Your task to perform on an android device: Search for dell xps on newegg, select the first entry, add it to the cart, then select checkout. Image 0: 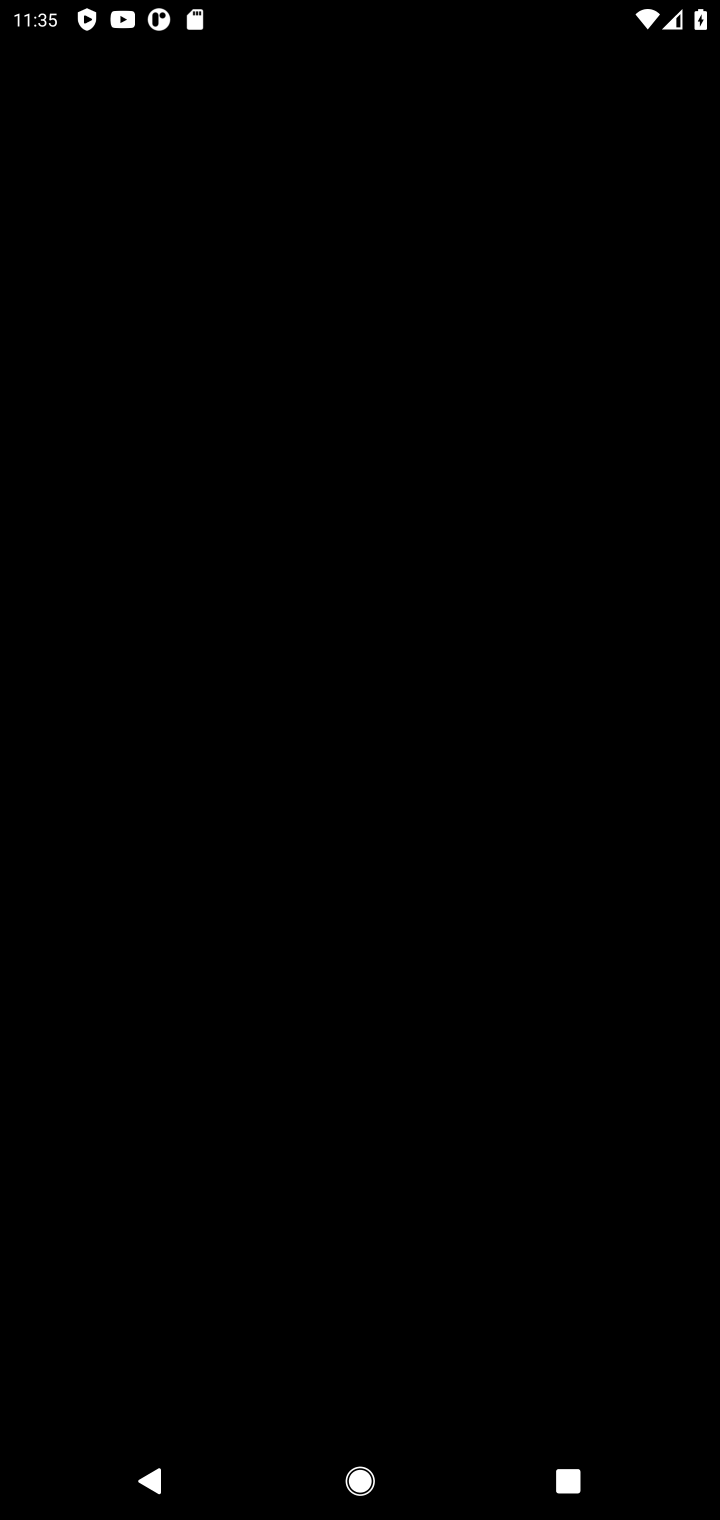
Step 0: press home button
Your task to perform on an android device: Search for dell xps on newegg, select the first entry, add it to the cart, then select checkout. Image 1: 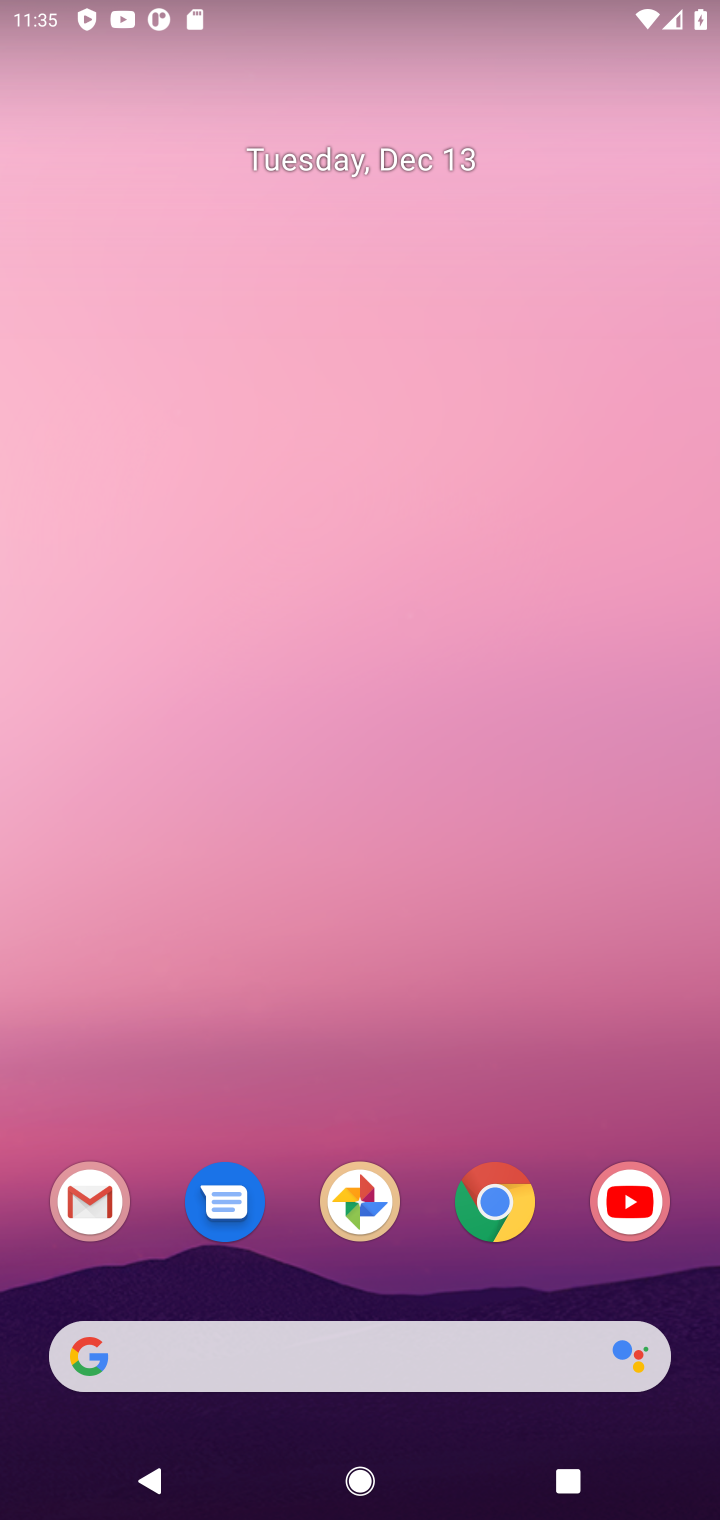
Step 1: click (482, 1205)
Your task to perform on an android device: Search for dell xps on newegg, select the first entry, add it to the cart, then select checkout. Image 2: 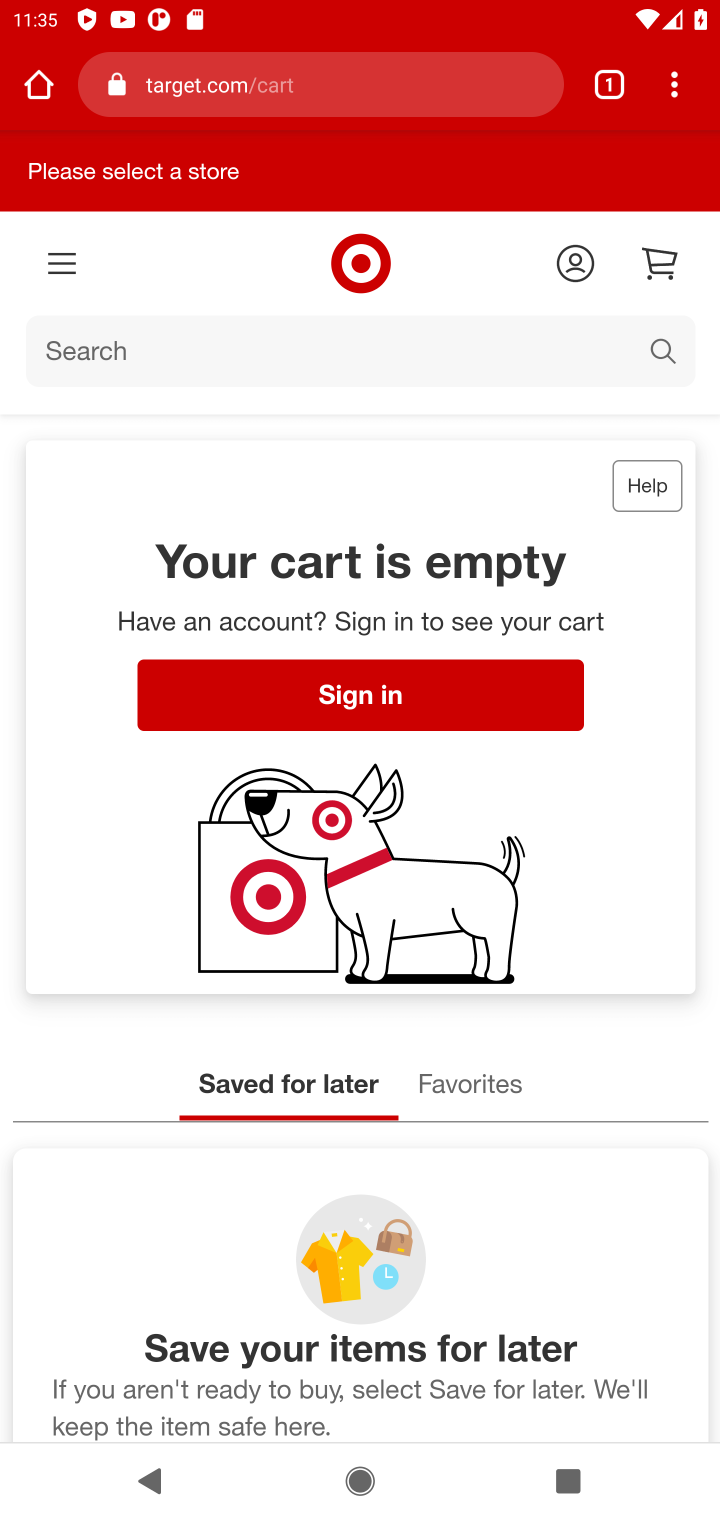
Step 2: click (341, 93)
Your task to perform on an android device: Search for dell xps on newegg, select the first entry, add it to the cart, then select checkout. Image 3: 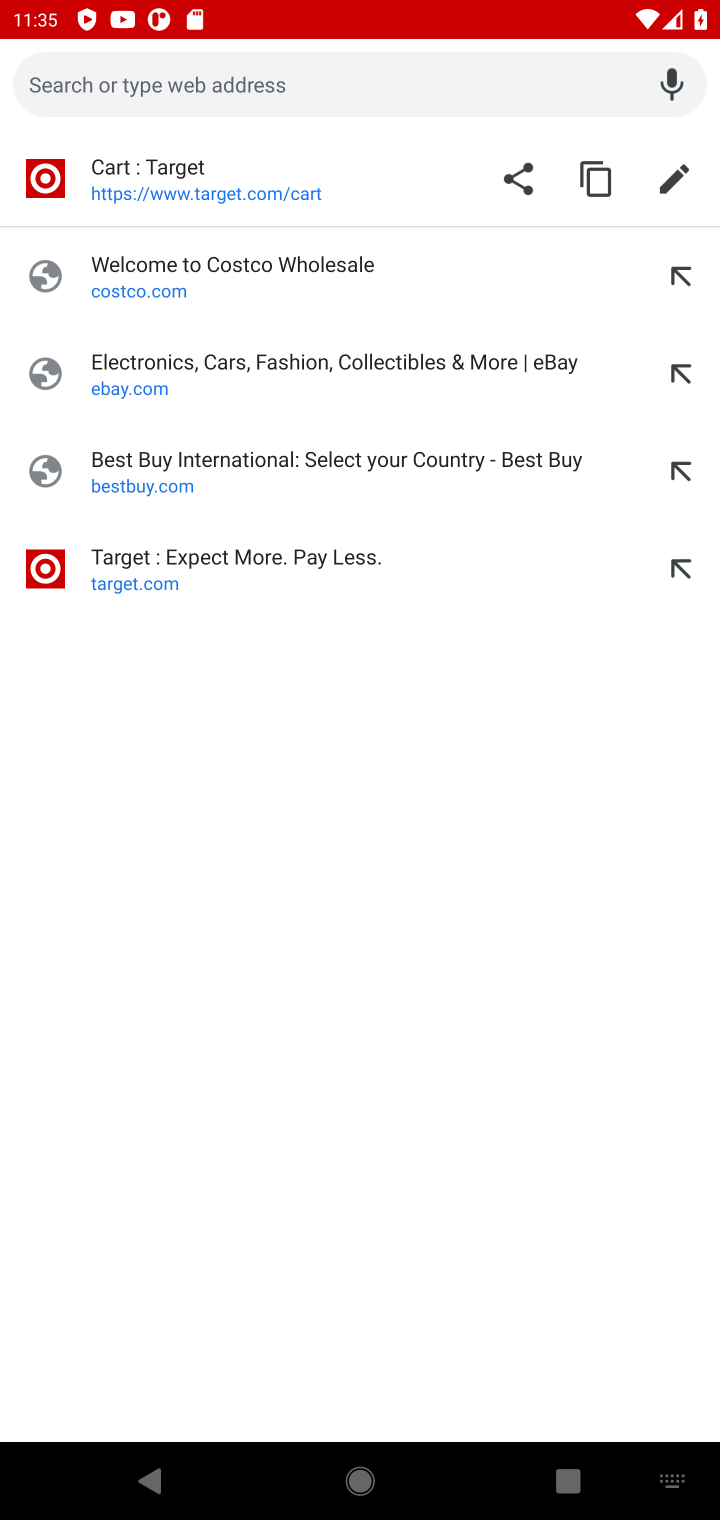
Step 3: type "newegg"
Your task to perform on an android device: Search for dell xps on newegg, select the first entry, add it to the cart, then select checkout. Image 4: 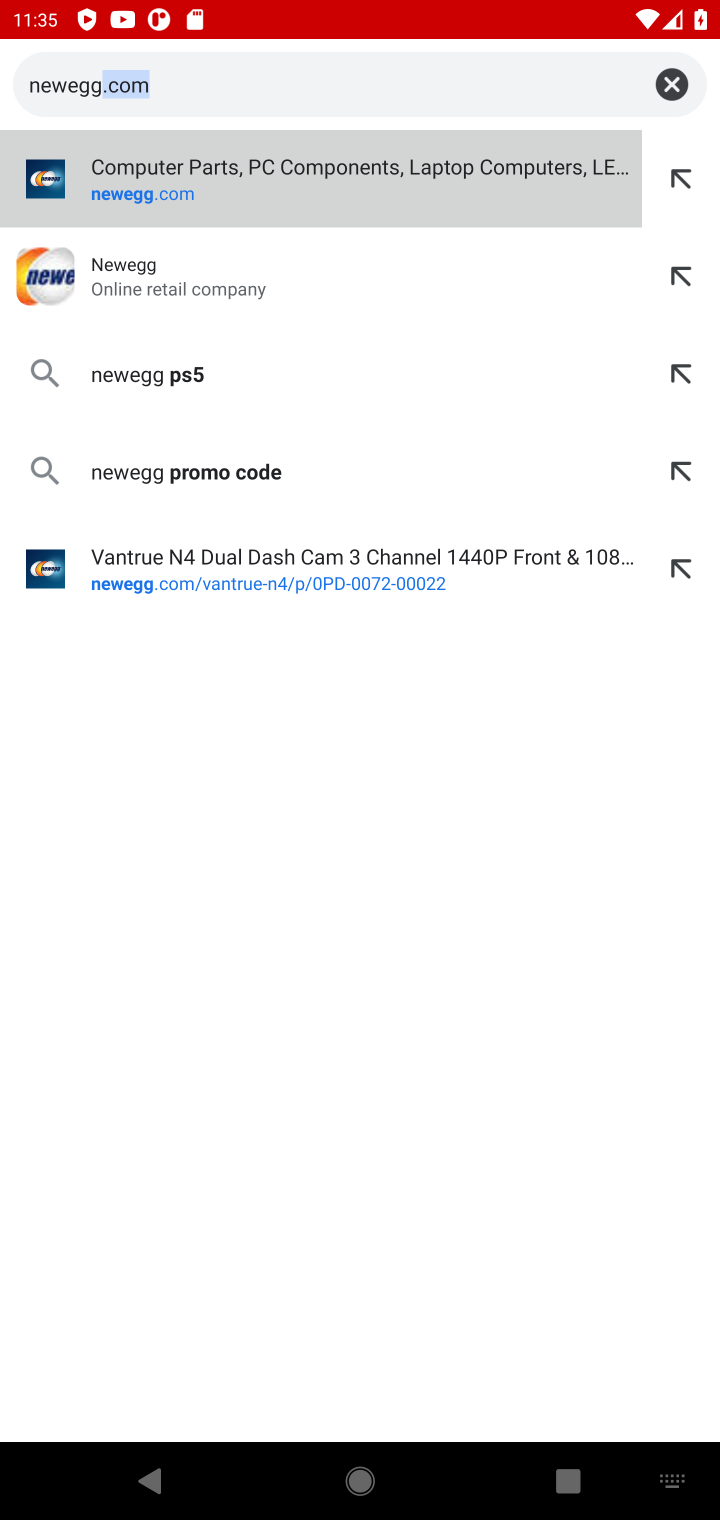
Step 4: click (305, 192)
Your task to perform on an android device: Search for dell xps on newegg, select the first entry, add it to the cart, then select checkout. Image 5: 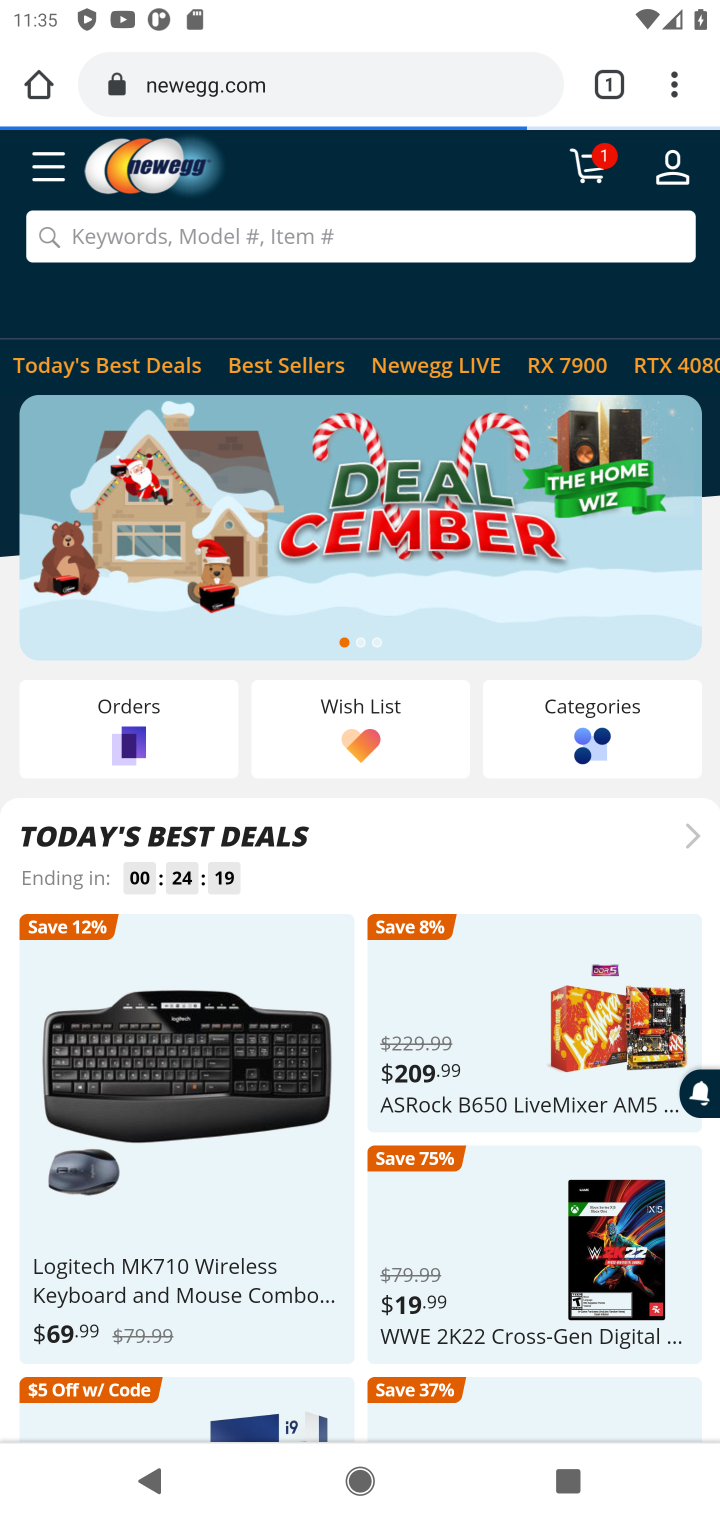
Step 5: click (313, 241)
Your task to perform on an android device: Search for dell xps on newegg, select the first entry, add it to the cart, then select checkout. Image 6: 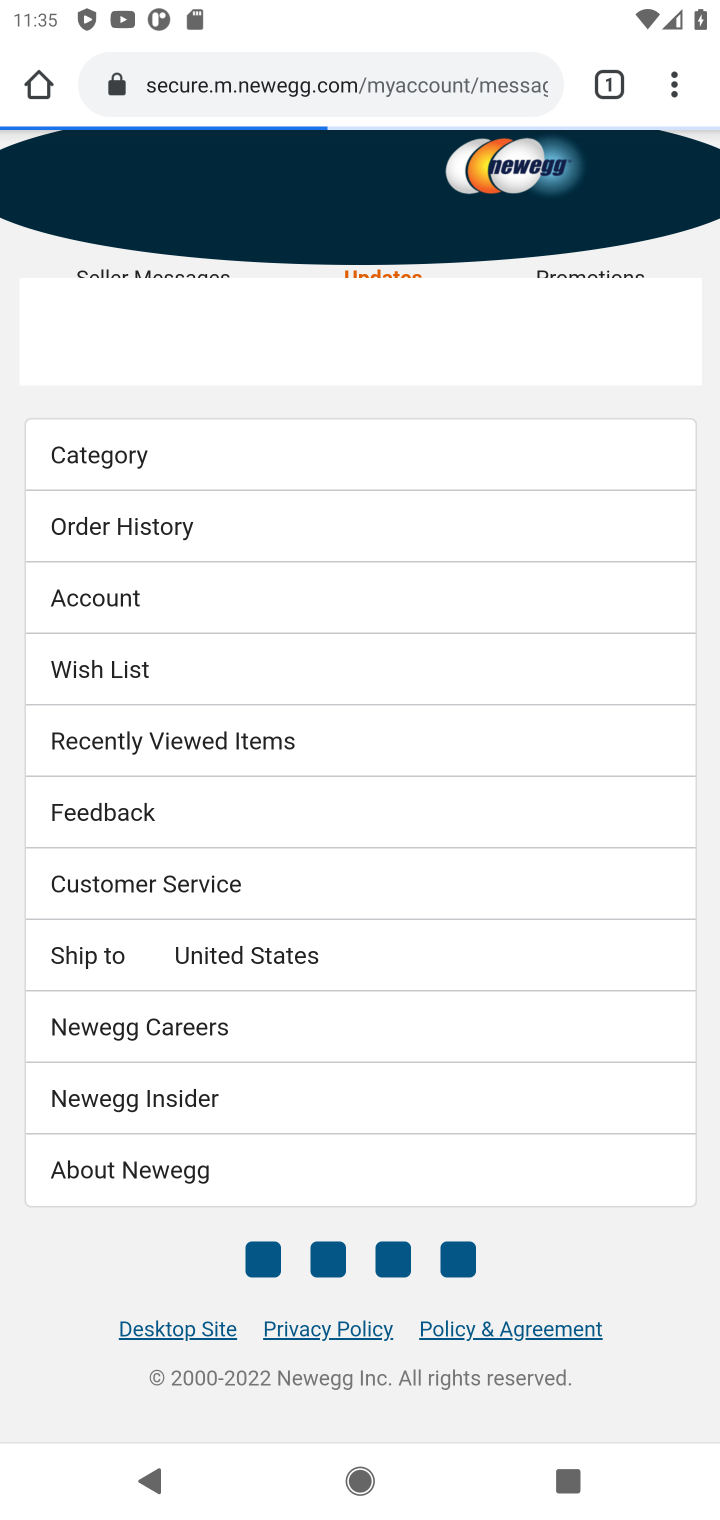
Step 6: click (456, 239)
Your task to perform on an android device: Search for dell xps on newegg, select the first entry, add it to the cart, then select checkout. Image 7: 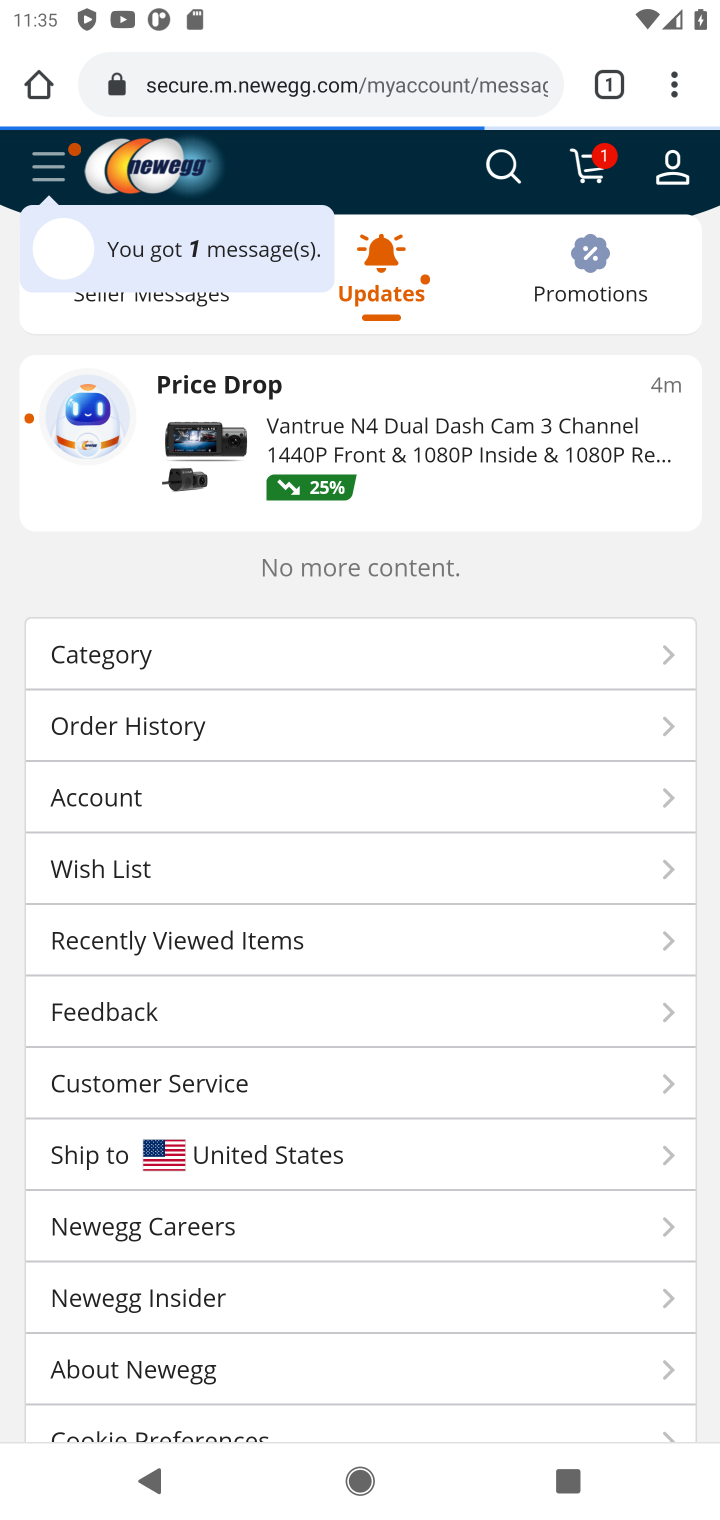
Step 7: click (118, 170)
Your task to perform on an android device: Search for dell xps on newegg, select the first entry, add it to the cart, then select checkout. Image 8: 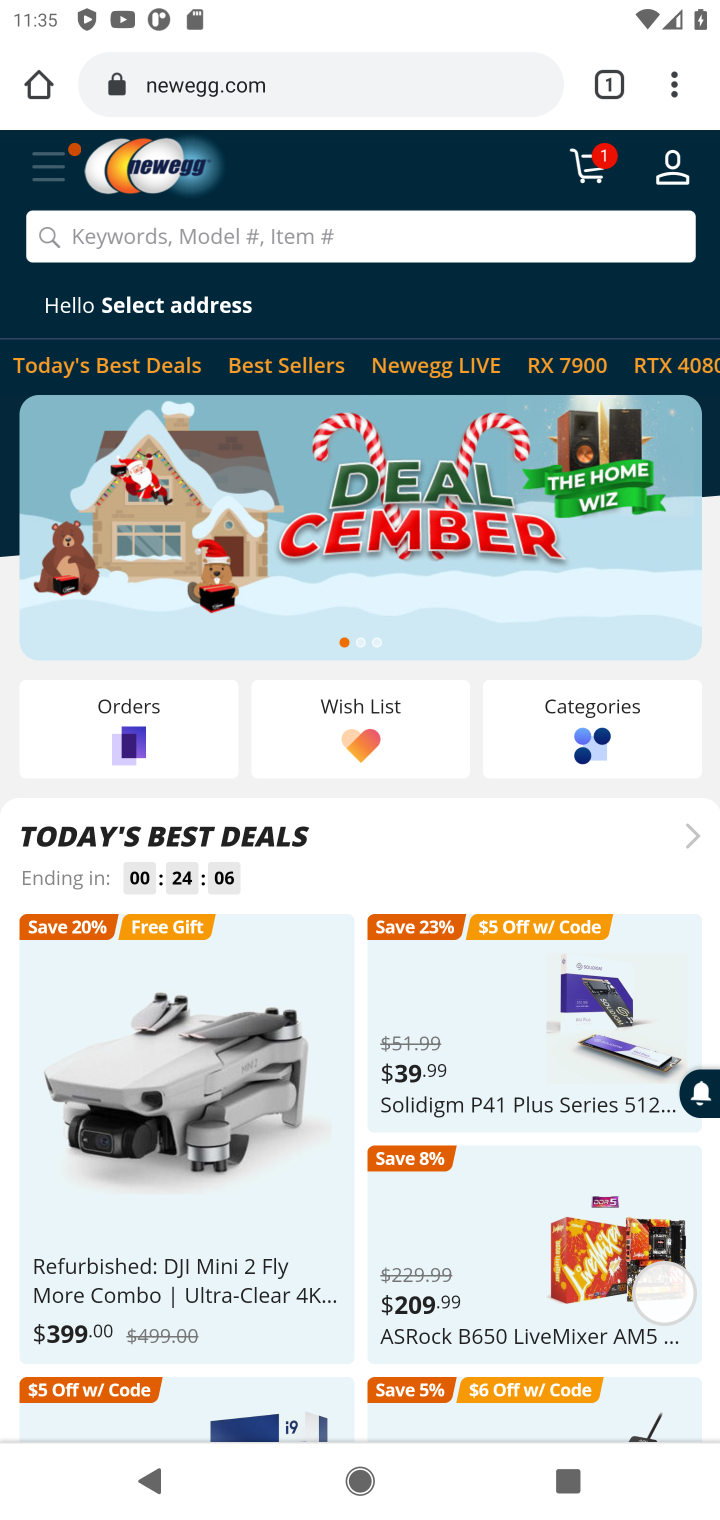
Step 8: click (495, 244)
Your task to perform on an android device: Search for dell xps on newegg, select the first entry, add it to the cart, then select checkout. Image 9: 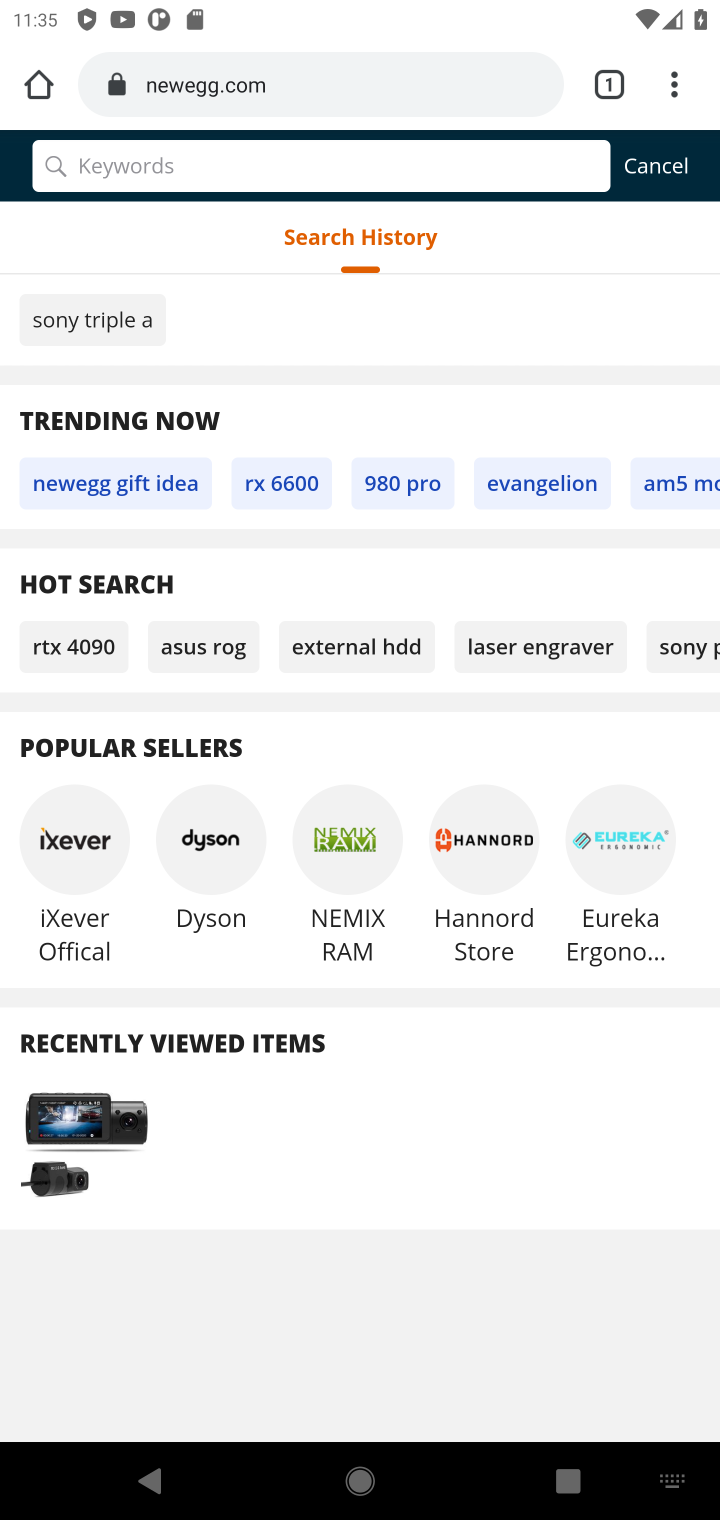
Step 9: type "dell xps"
Your task to perform on an android device: Search for dell xps on newegg, select the first entry, add it to the cart, then select checkout. Image 10: 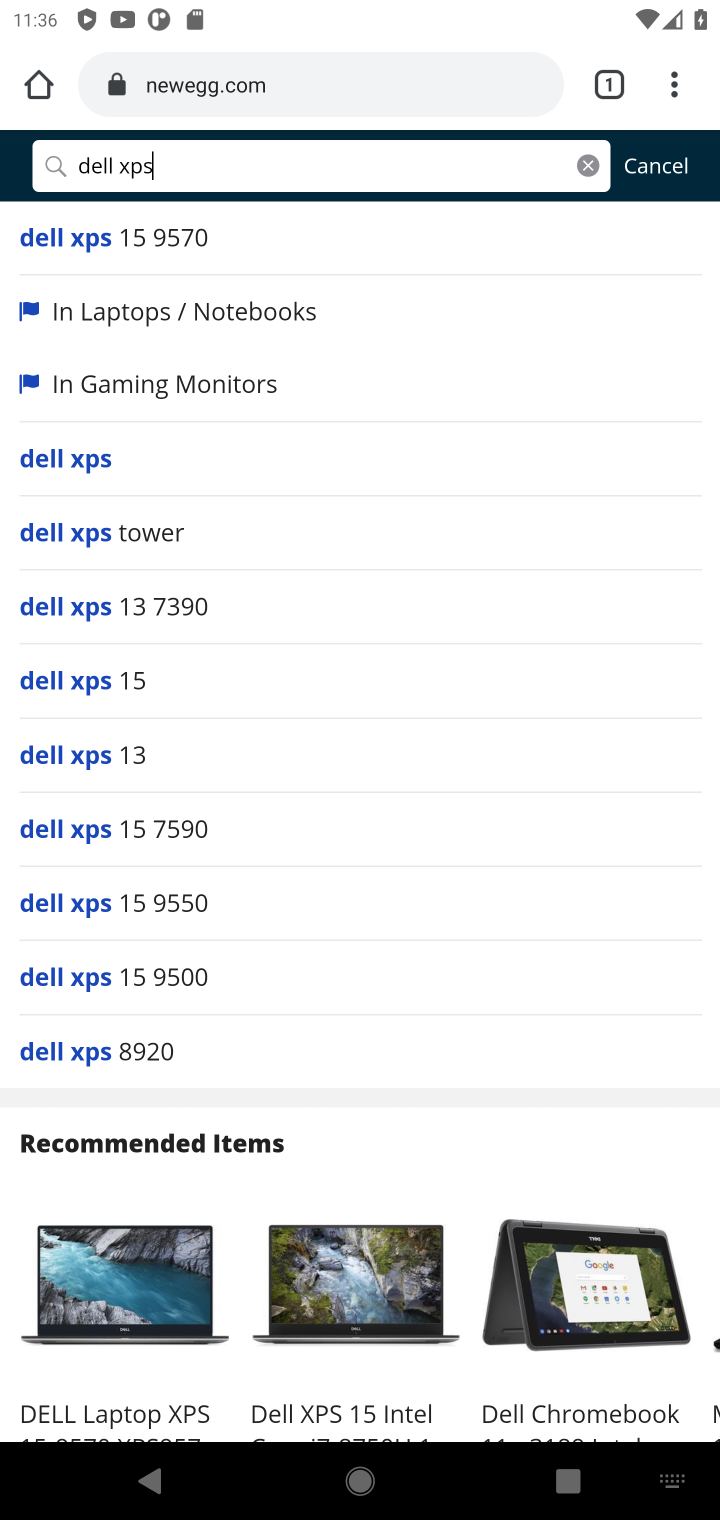
Step 10: click (177, 234)
Your task to perform on an android device: Search for dell xps on newegg, select the first entry, add it to the cart, then select checkout. Image 11: 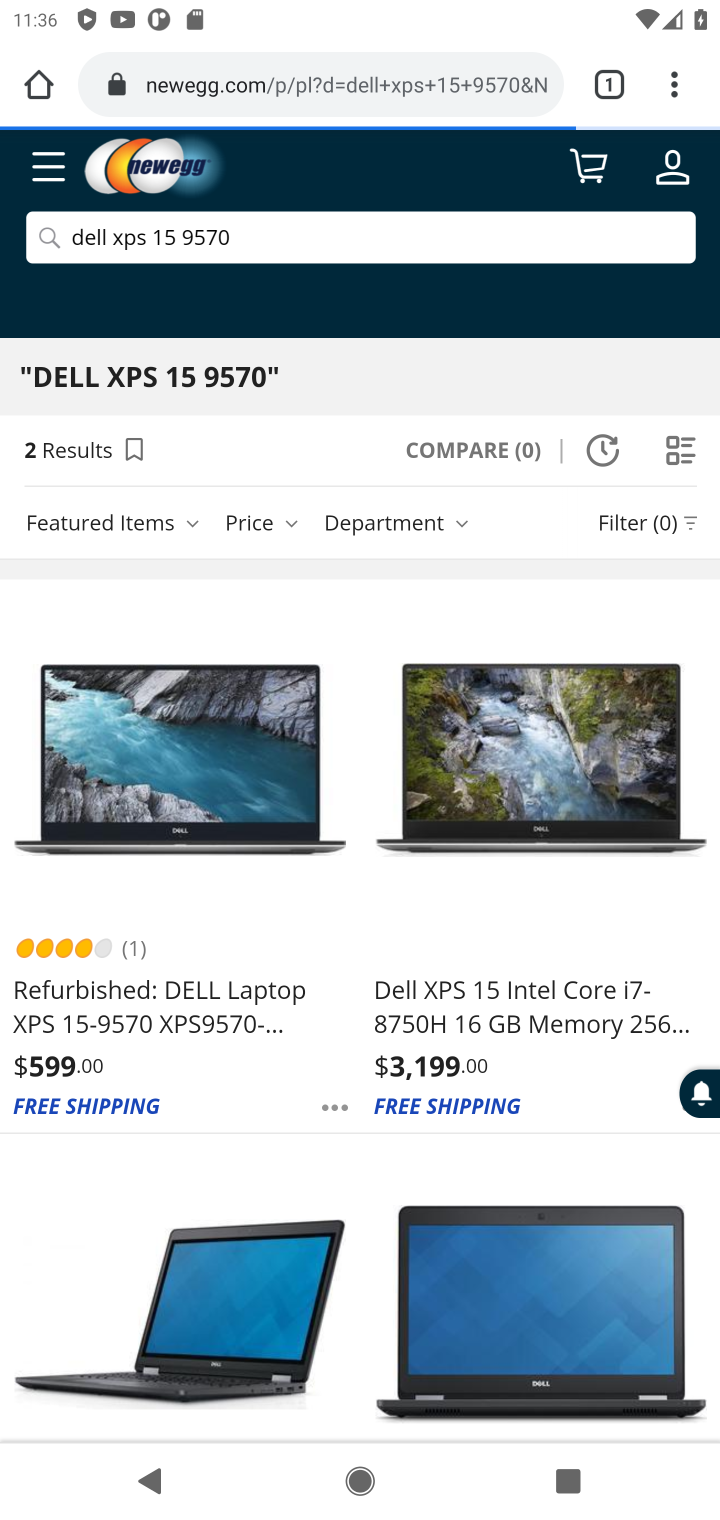
Step 11: click (279, 725)
Your task to perform on an android device: Search for dell xps on newegg, select the first entry, add it to the cart, then select checkout. Image 12: 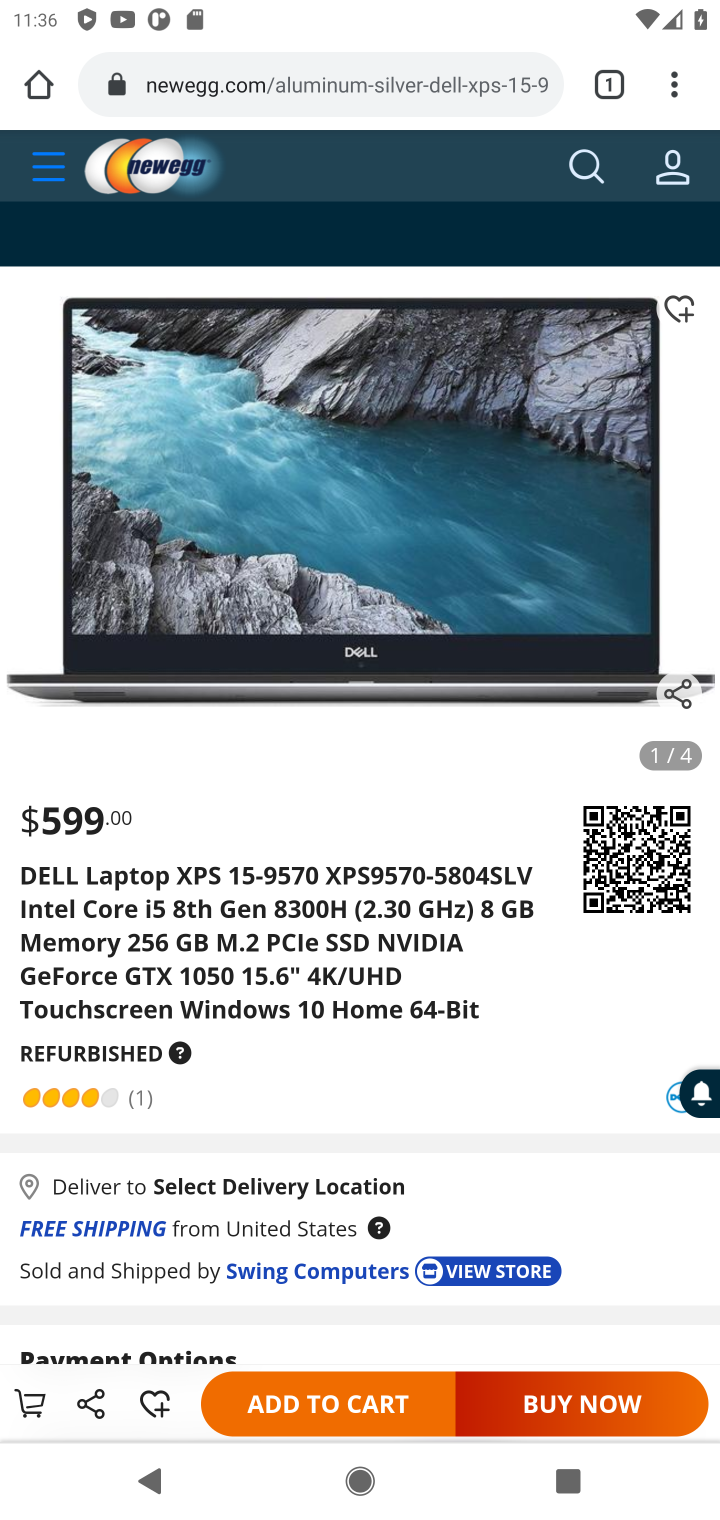
Step 12: click (354, 1417)
Your task to perform on an android device: Search for dell xps on newegg, select the first entry, add it to the cart, then select checkout. Image 13: 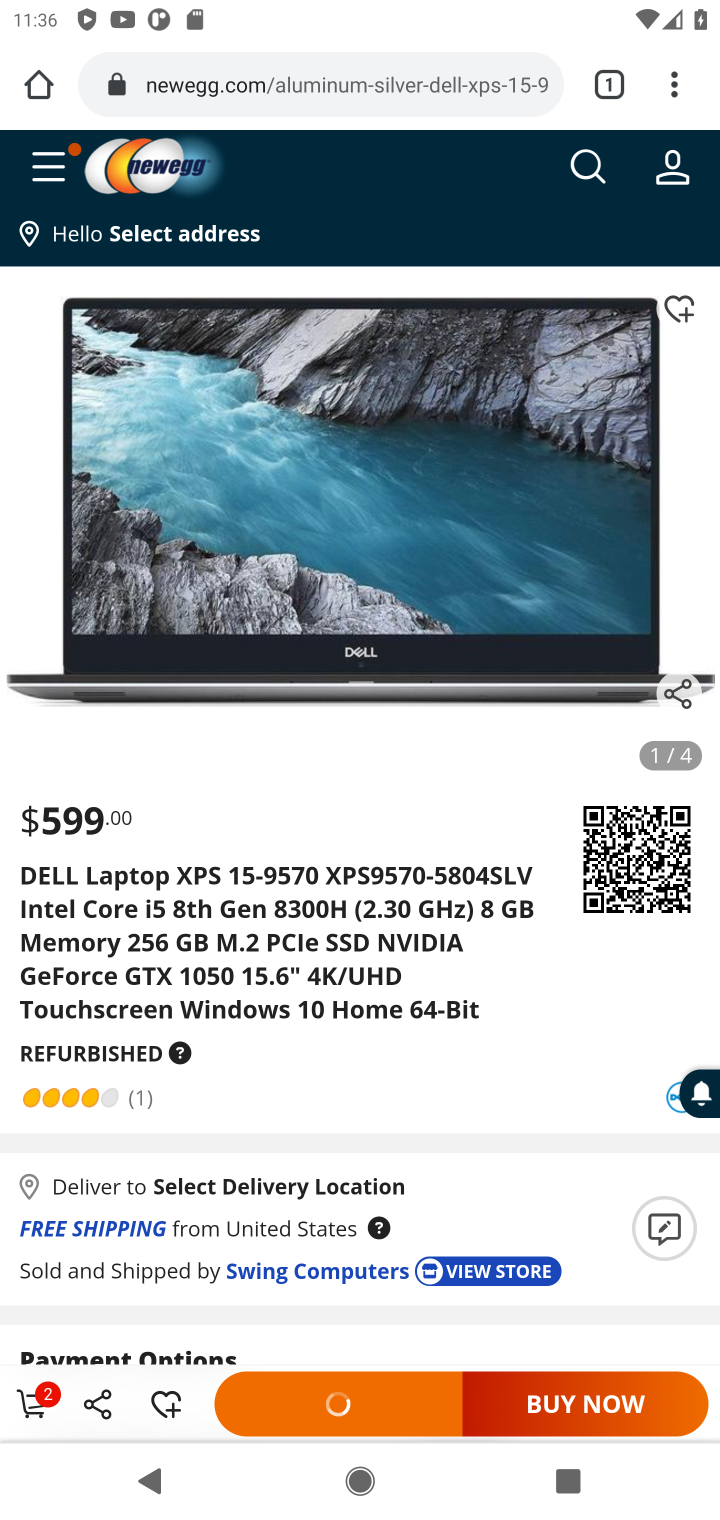
Step 13: click (43, 1398)
Your task to perform on an android device: Search for dell xps on newegg, select the first entry, add it to the cart, then select checkout. Image 14: 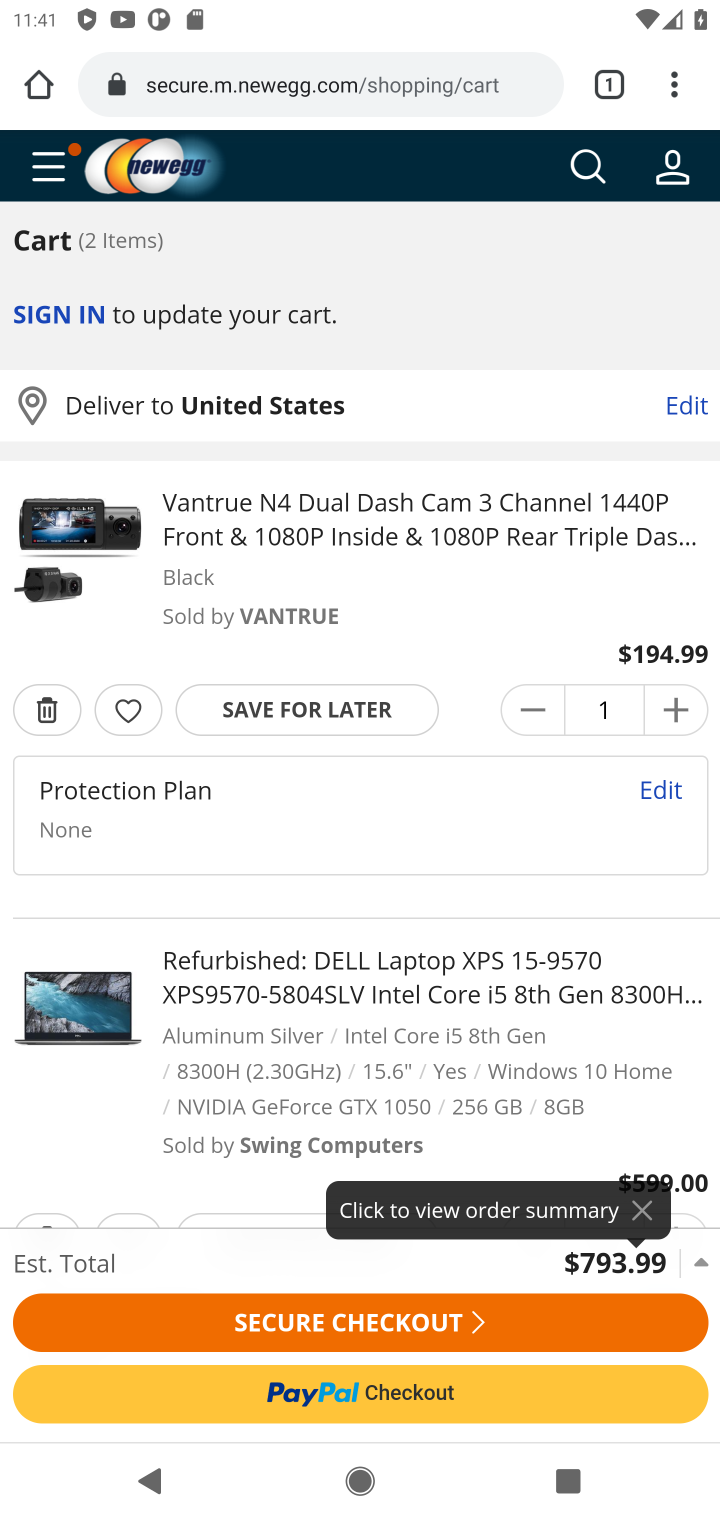
Step 14: click (345, 1305)
Your task to perform on an android device: Search for dell xps on newegg, select the first entry, add it to the cart, then select checkout. Image 15: 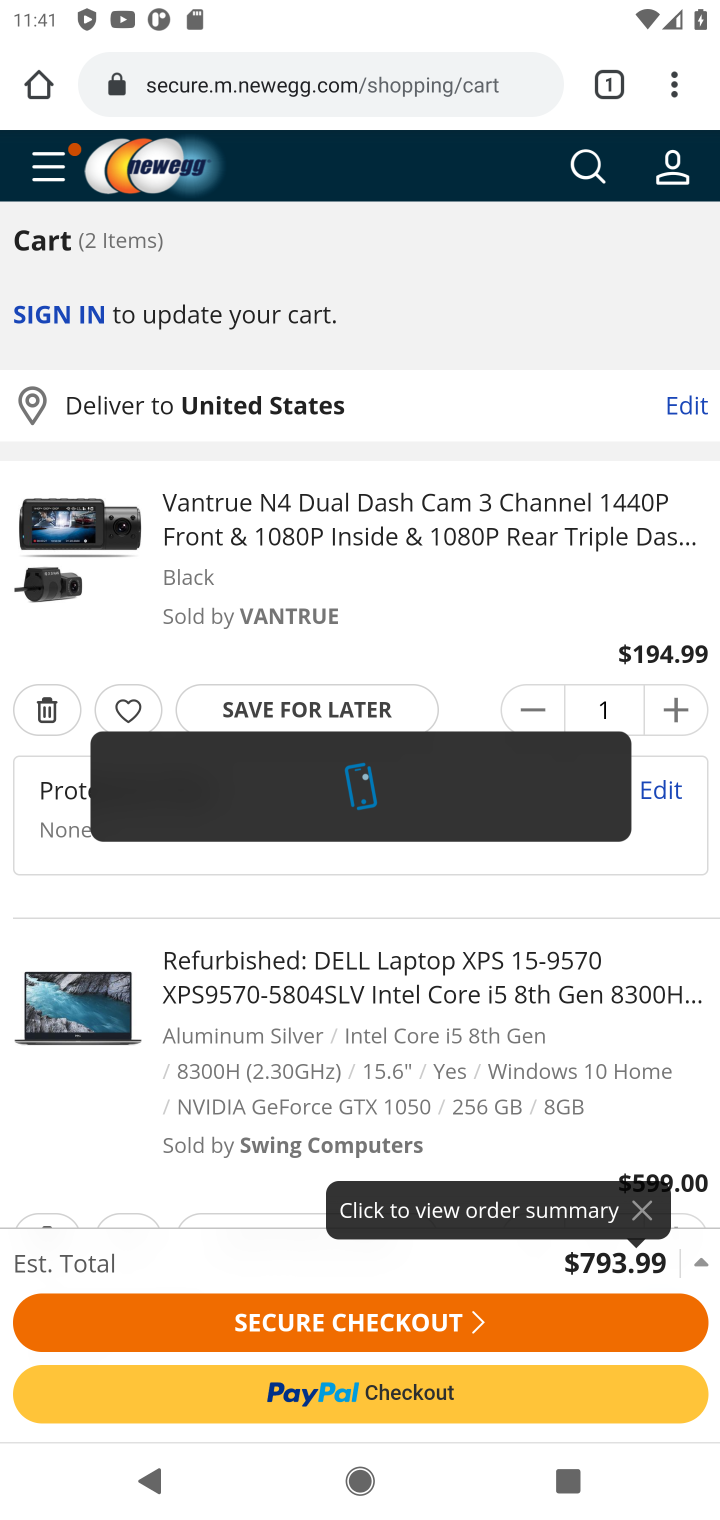
Step 15: click (345, 1321)
Your task to perform on an android device: Search for dell xps on newegg, select the first entry, add it to the cart, then select checkout. Image 16: 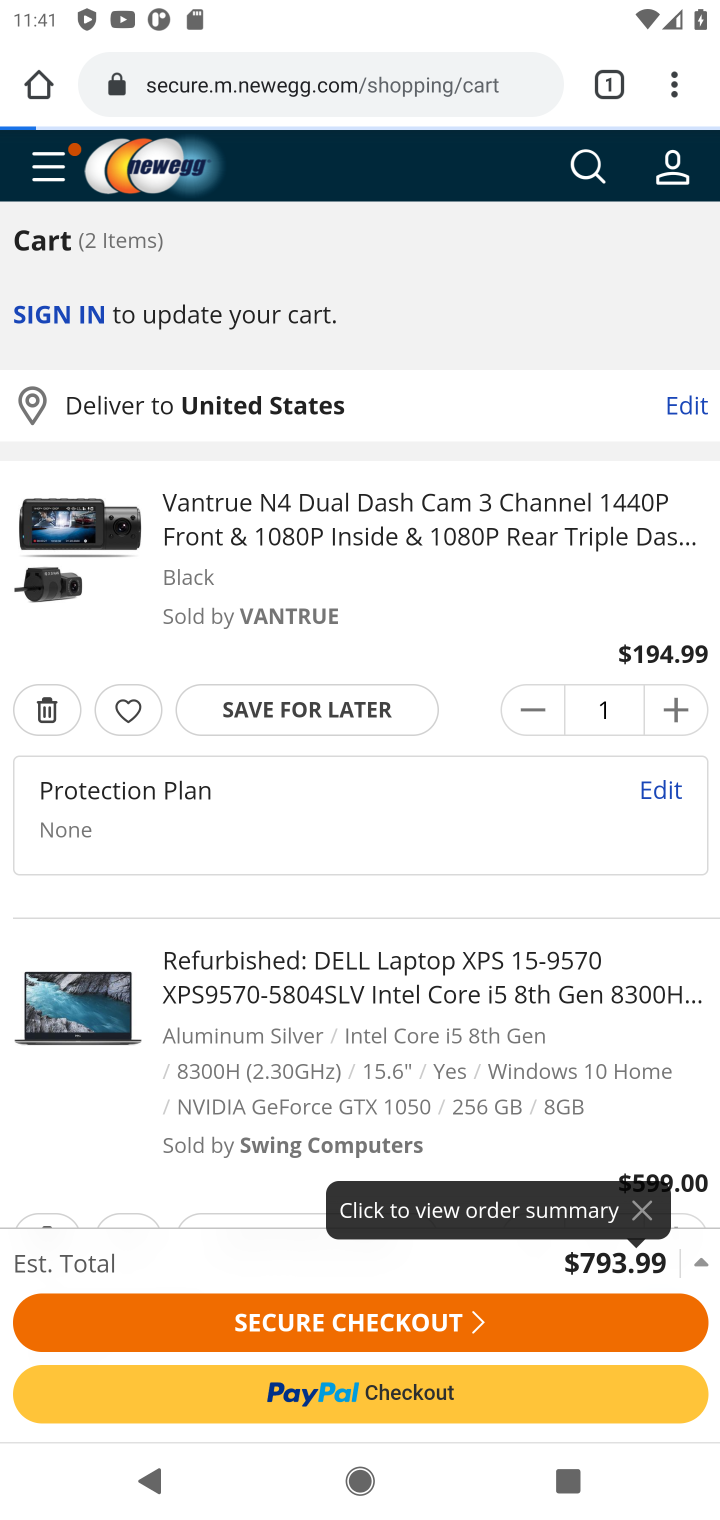
Step 16: task complete